Your task to perform on an android device: What's on my calendar tomorrow? Image 0: 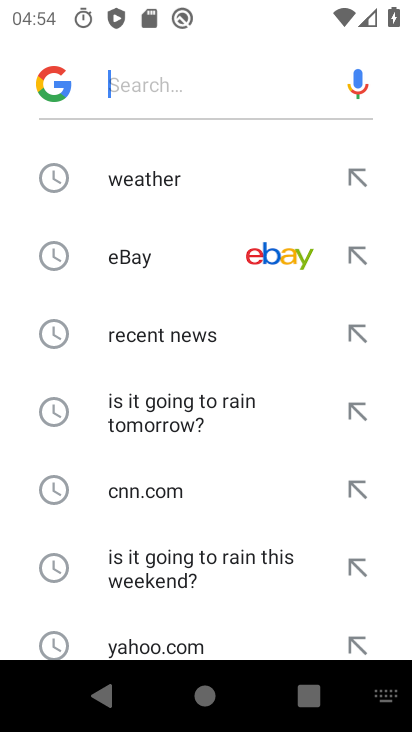
Step 0: press home button
Your task to perform on an android device: What's on my calendar tomorrow? Image 1: 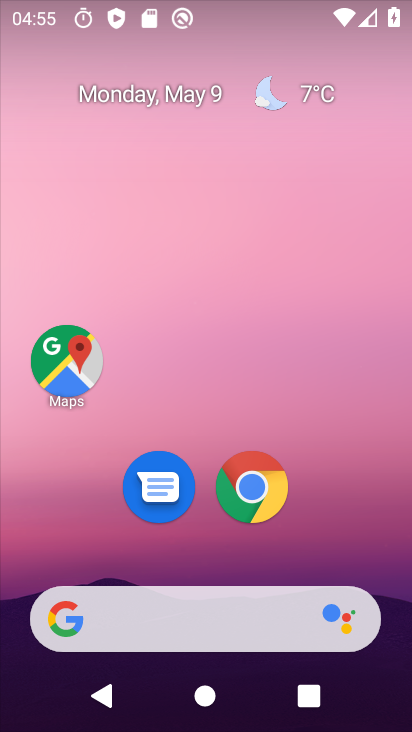
Step 1: drag from (200, 531) to (183, 97)
Your task to perform on an android device: What's on my calendar tomorrow? Image 2: 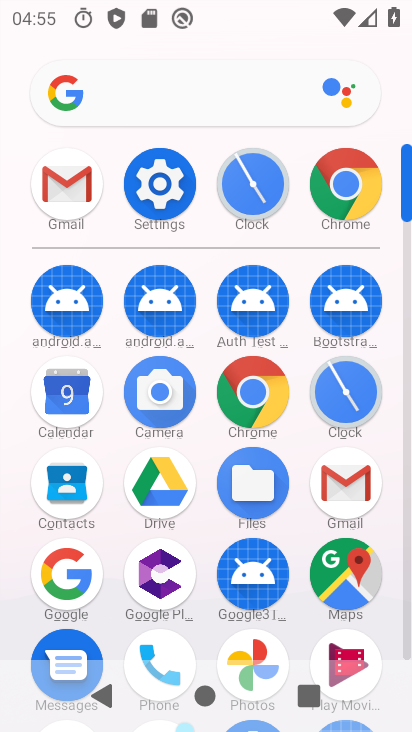
Step 2: click (48, 408)
Your task to perform on an android device: What's on my calendar tomorrow? Image 3: 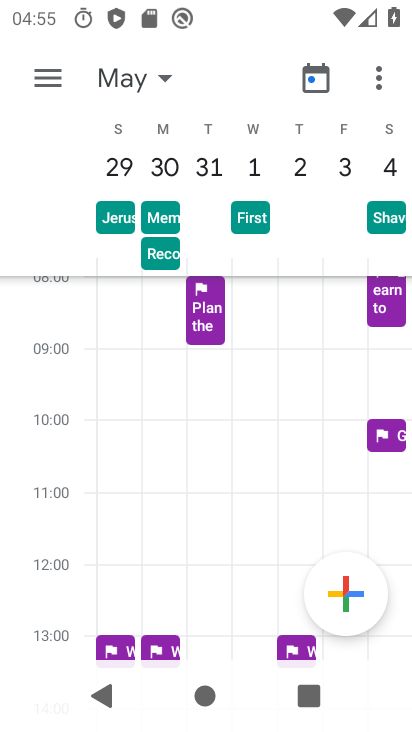
Step 3: click (139, 76)
Your task to perform on an android device: What's on my calendar tomorrow? Image 4: 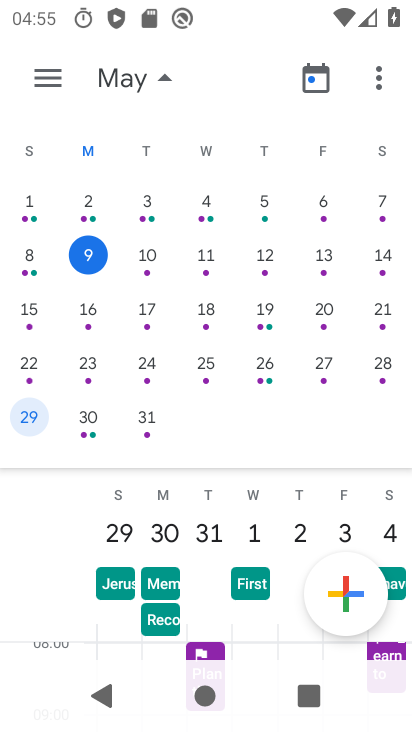
Step 4: click (87, 249)
Your task to perform on an android device: What's on my calendar tomorrow? Image 5: 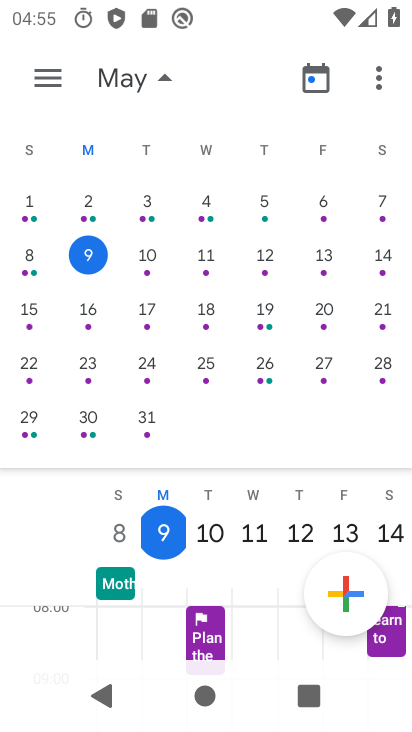
Step 5: click (157, 257)
Your task to perform on an android device: What's on my calendar tomorrow? Image 6: 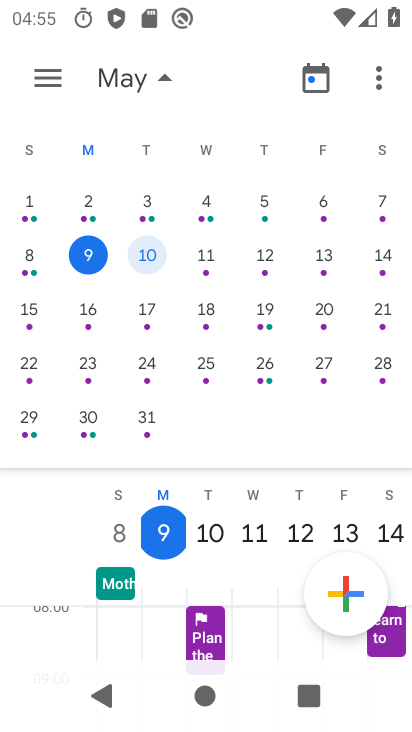
Step 6: click (166, 84)
Your task to perform on an android device: What's on my calendar tomorrow? Image 7: 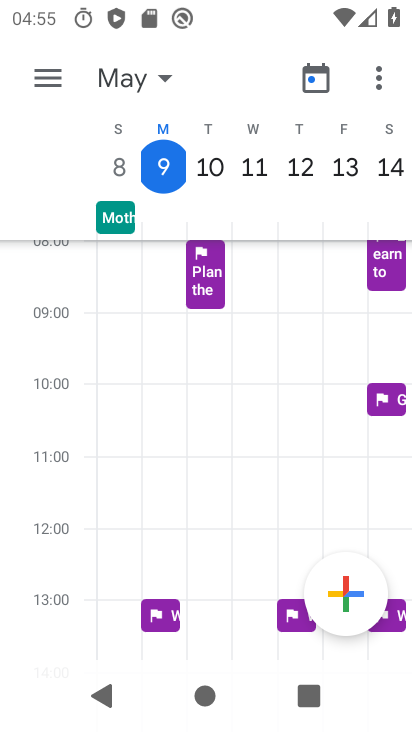
Step 7: click (209, 169)
Your task to perform on an android device: What's on my calendar tomorrow? Image 8: 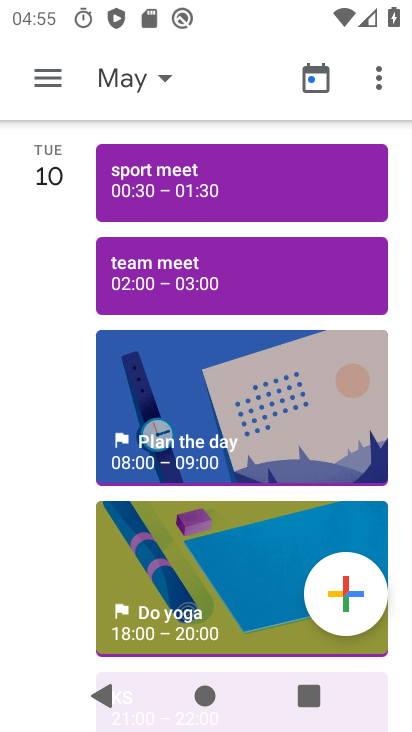
Step 8: task complete